Your task to perform on an android device: Check the weather Image 0: 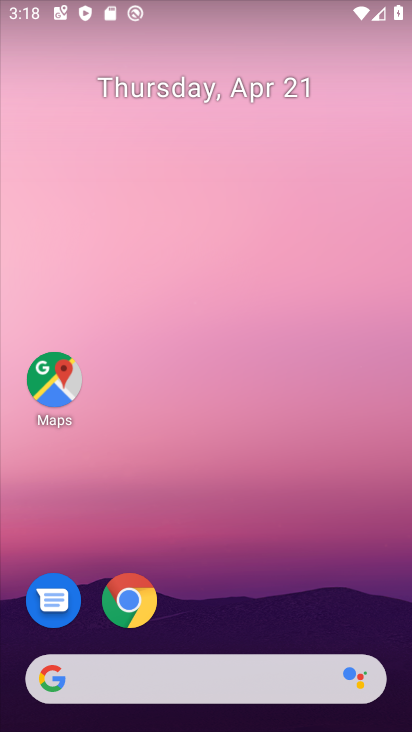
Step 0: drag from (299, 608) to (279, 10)
Your task to perform on an android device: Check the weather Image 1: 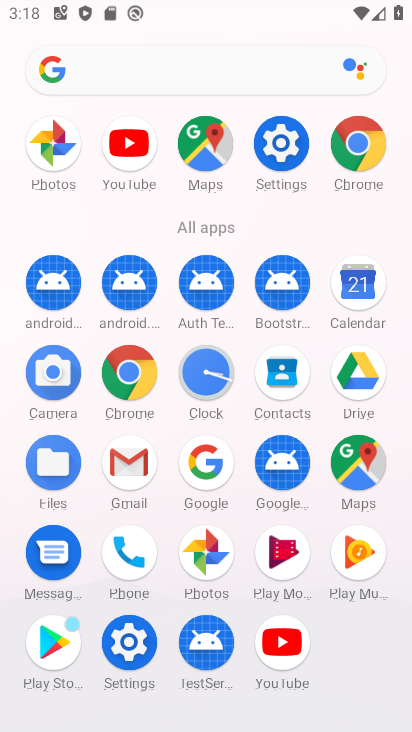
Step 1: click (204, 70)
Your task to perform on an android device: Check the weather Image 2: 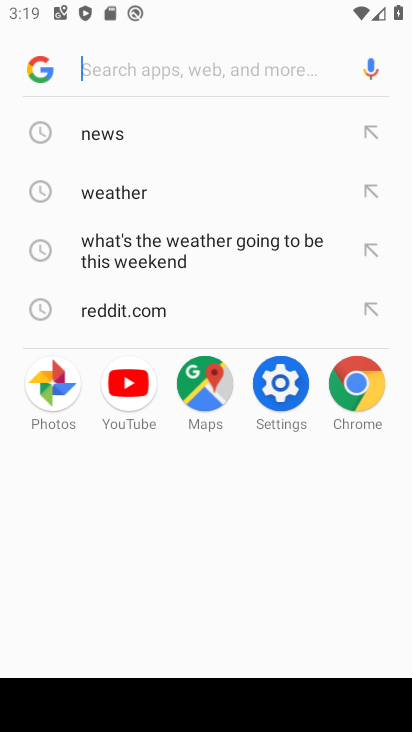
Step 2: type "weather"
Your task to perform on an android device: Check the weather Image 3: 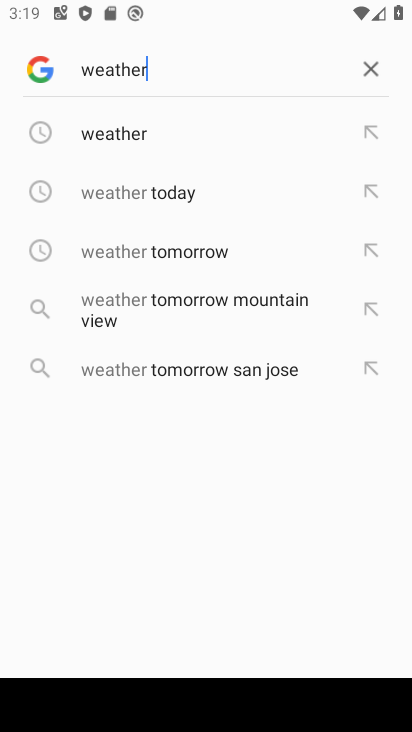
Step 3: click (152, 115)
Your task to perform on an android device: Check the weather Image 4: 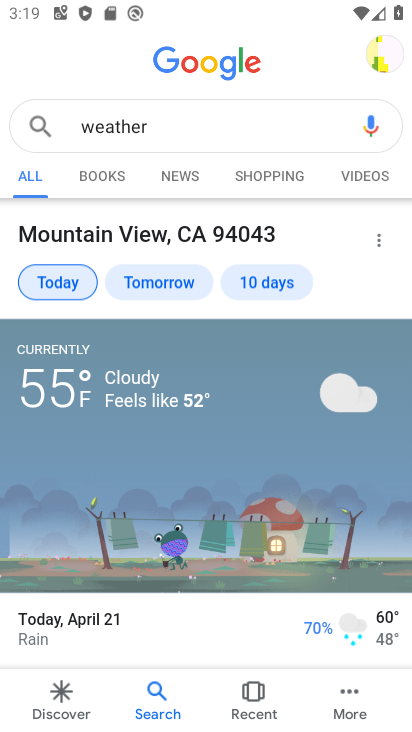
Step 4: task complete